Your task to perform on an android device: turn on bluetooth scan Image 0: 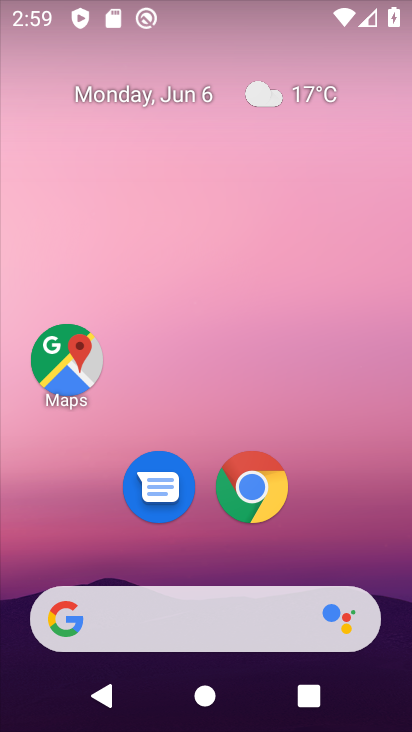
Step 0: drag from (116, 579) to (232, 72)
Your task to perform on an android device: turn on bluetooth scan Image 1: 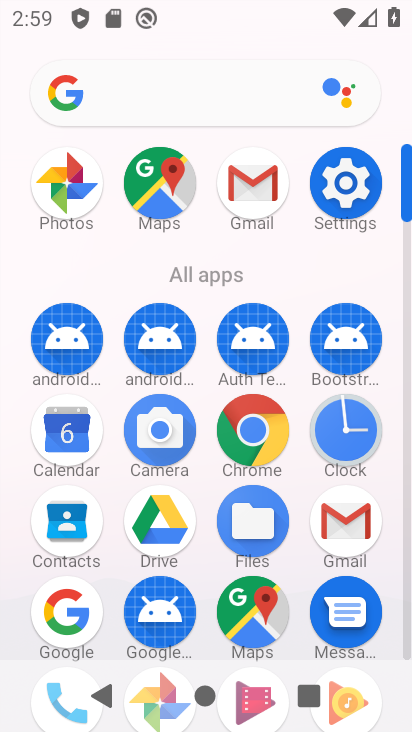
Step 1: drag from (165, 627) to (282, 322)
Your task to perform on an android device: turn on bluetooth scan Image 2: 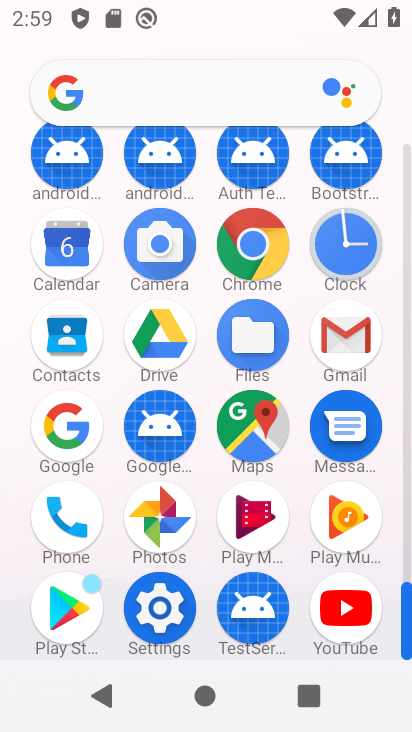
Step 2: click (148, 621)
Your task to perform on an android device: turn on bluetooth scan Image 3: 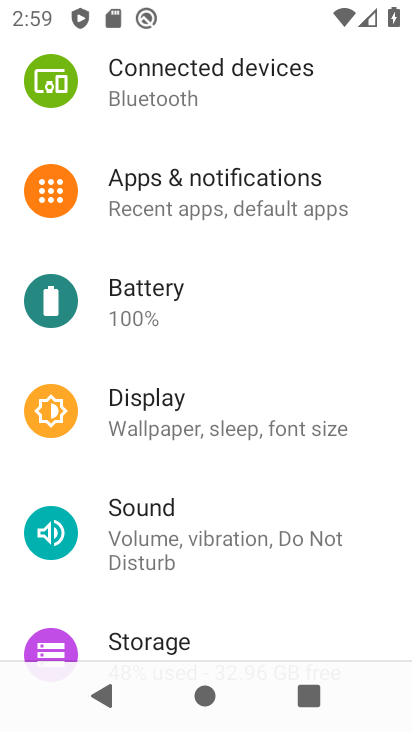
Step 3: drag from (275, 222) to (262, 572)
Your task to perform on an android device: turn on bluetooth scan Image 4: 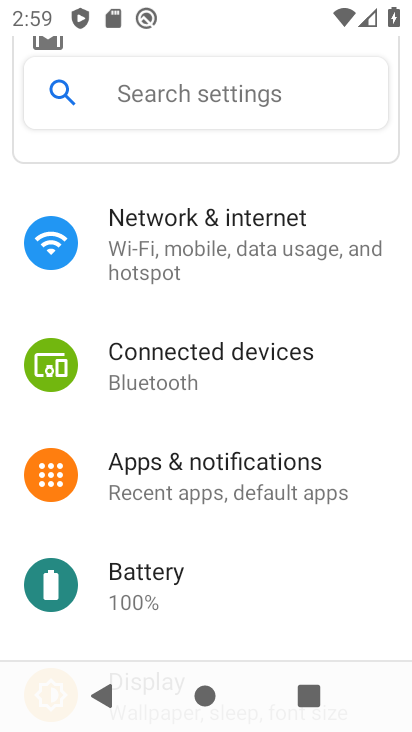
Step 4: click (256, 349)
Your task to perform on an android device: turn on bluetooth scan Image 5: 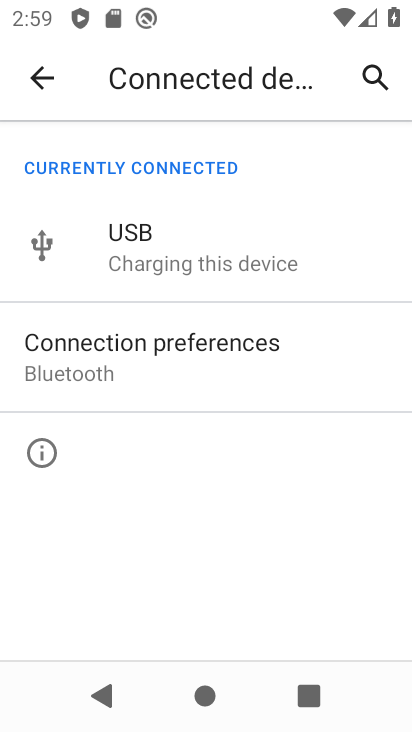
Step 5: click (251, 352)
Your task to perform on an android device: turn on bluetooth scan Image 6: 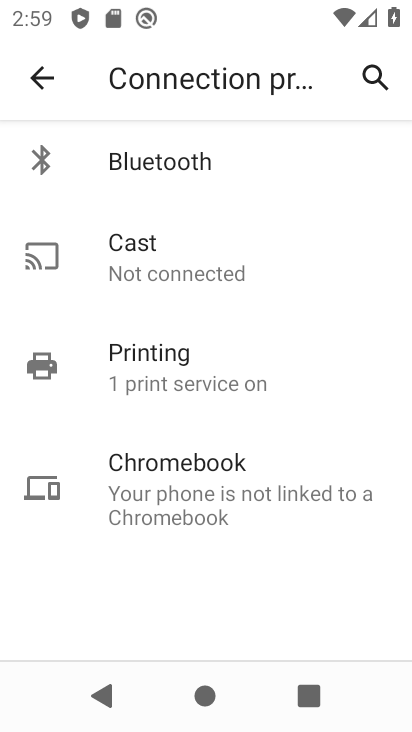
Step 6: click (234, 182)
Your task to perform on an android device: turn on bluetooth scan Image 7: 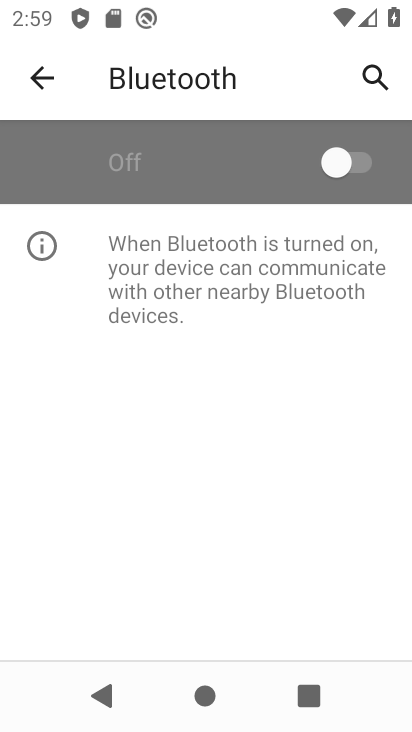
Step 7: click (374, 150)
Your task to perform on an android device: turn on bluetooth scan Image 8: 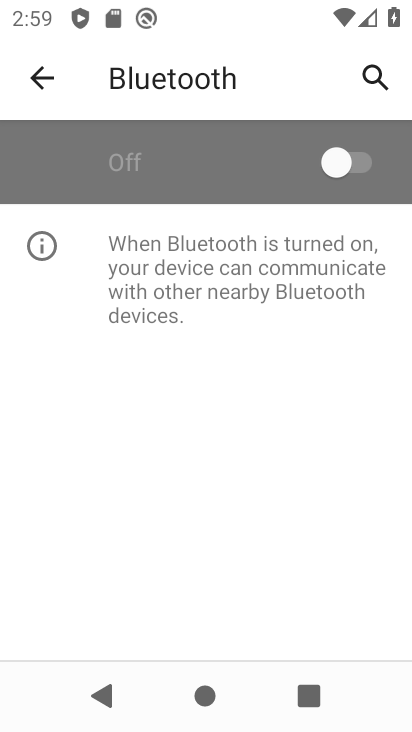
Step 8: task complete